Your task to perform on an android device: turn off airplane mode Image 0: 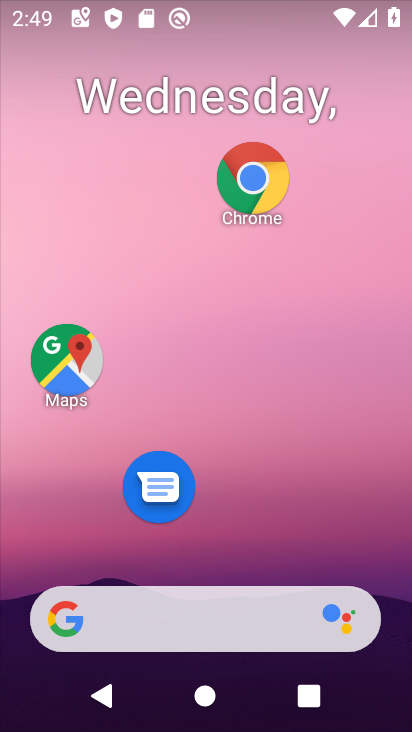
Step 0: drag from (288, 525) to (305, 59)
Your task to perform on an android device: turn off airplane mode Image 1: 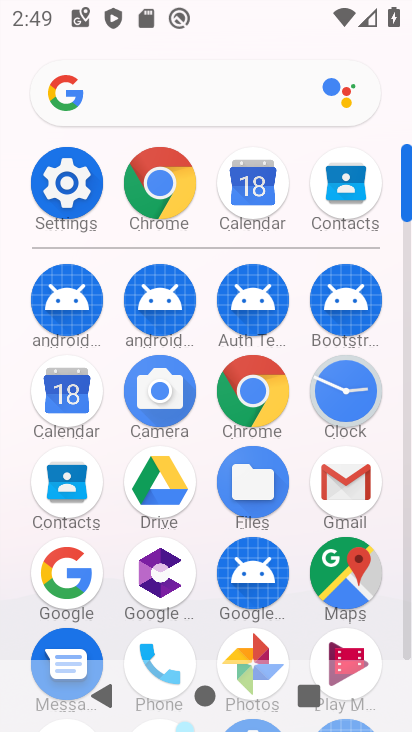
Step 1: click (63, 178)
Your task to perform on an android device: turn off airplane mode Image 2: 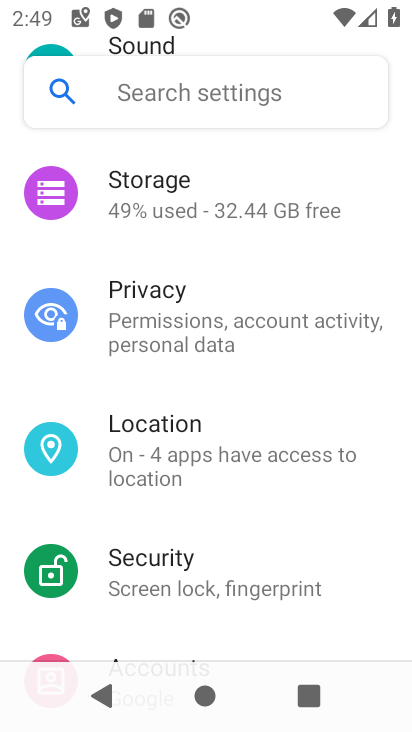
Step 2: drag from (195, 232) to (228, 579)
Your task to perform on an android device: turn off airplane mode Image 3: 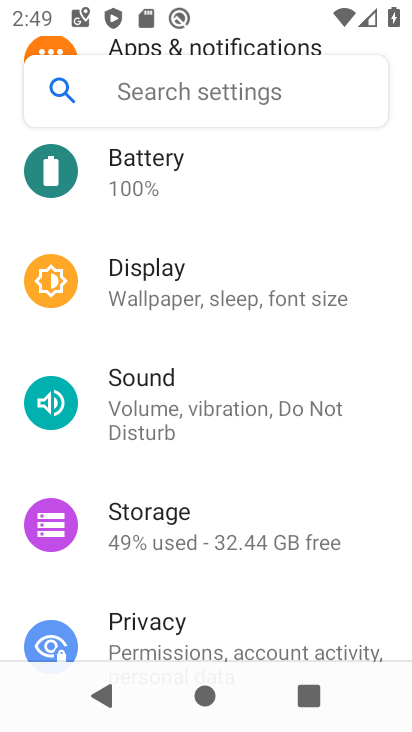
Step 3: drag from (234, 292) to (268, 554)
Your task to perform on an android device: turn off airplane mode Image 4: 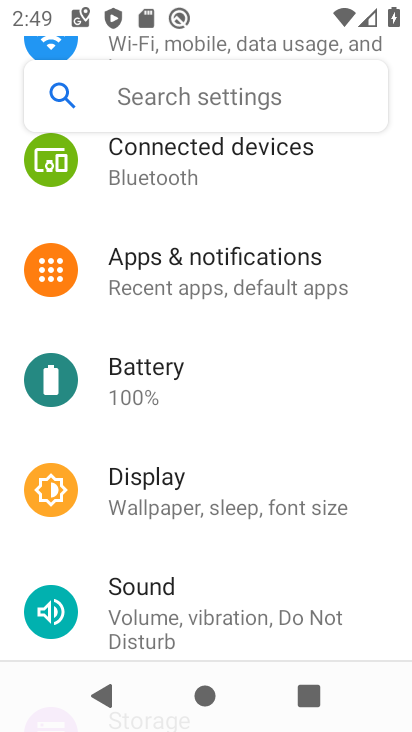
Step 4: drag from (203, 292) to (208, 622)
Your task to perform on an android device: turn off airplane mode Image 5: 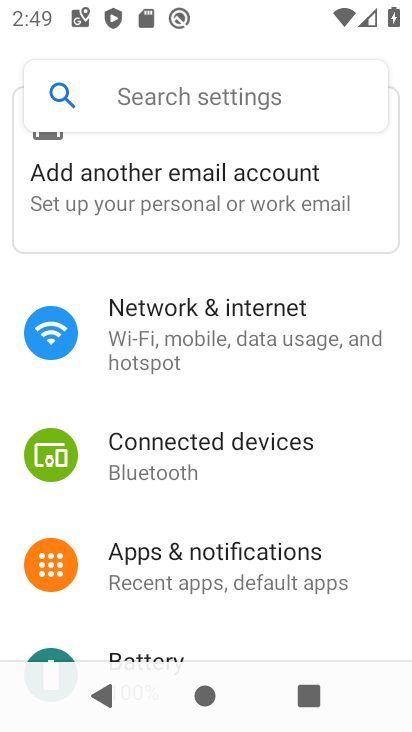
Step 5: click (175, 324)
Your task to perform on an android device: turn off airplane mode Image 6: 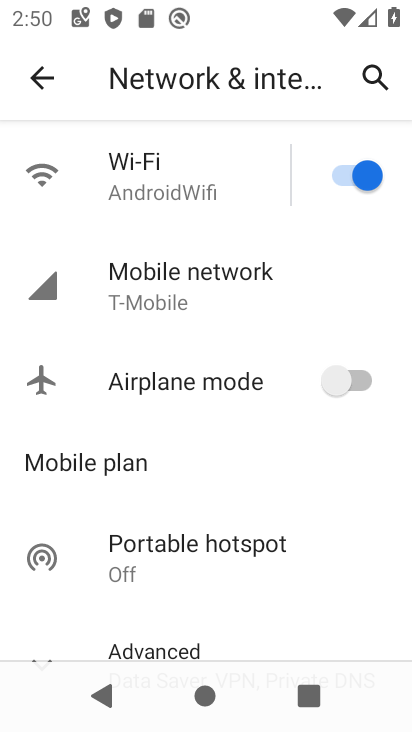
Step 6: task complete